Your task to perform on an android device: Go to sound settings Image 0: 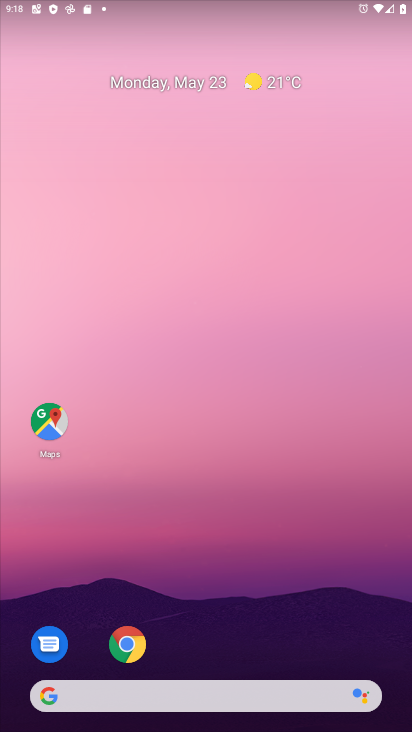
Step 0: drag from (163, 454) to (171, 7)
Your task to perform on an android device: Go to sound settings Image 1: 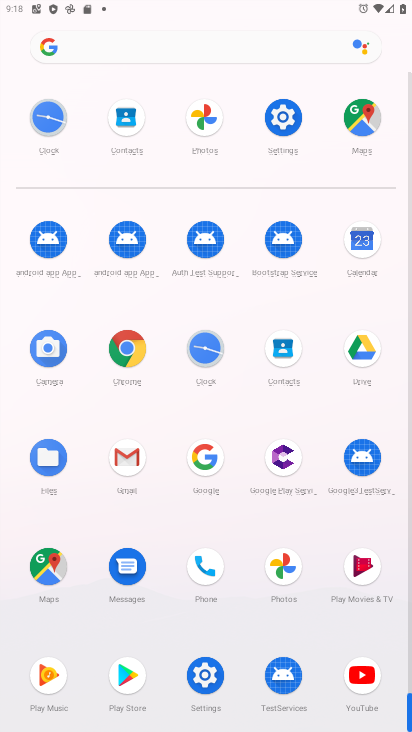
Step 1: click (286, 120)
Your task to perform on an android device: Go to sound settings Image 2: 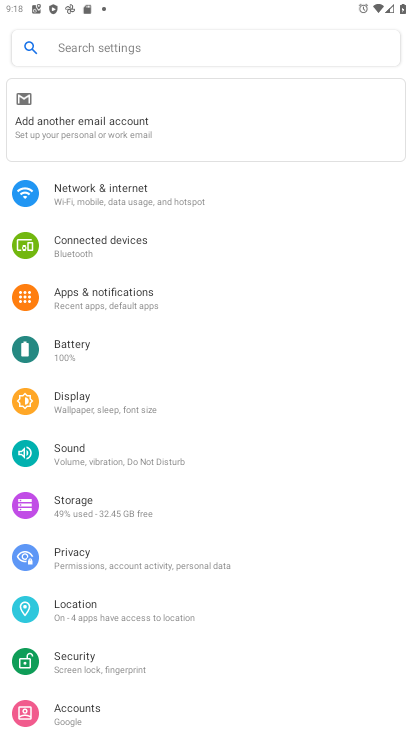
Step 2: click (122, 451)
Your task to perform on an android device: Go to sound settings Image 3: 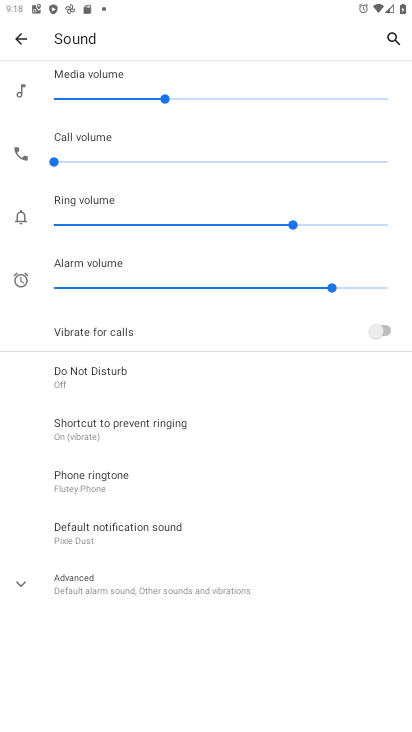
Step 3: task complete